Your task to perform on an android device: Open Amazon Image 0: 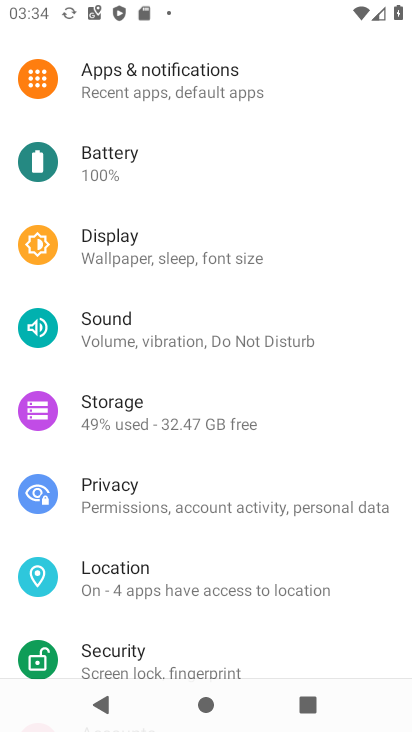
Step 0: press home button
Your task to perform on an android device: Open Amazon Image 1: 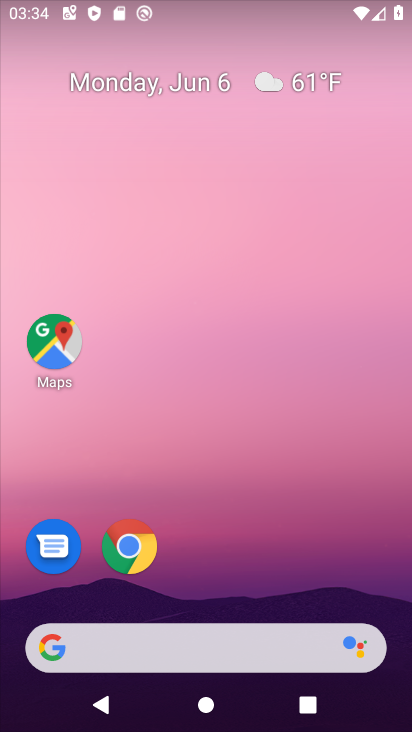
Step 1: click (49, 649)
Your task to perform on an android device: Open Amazon Image 2: 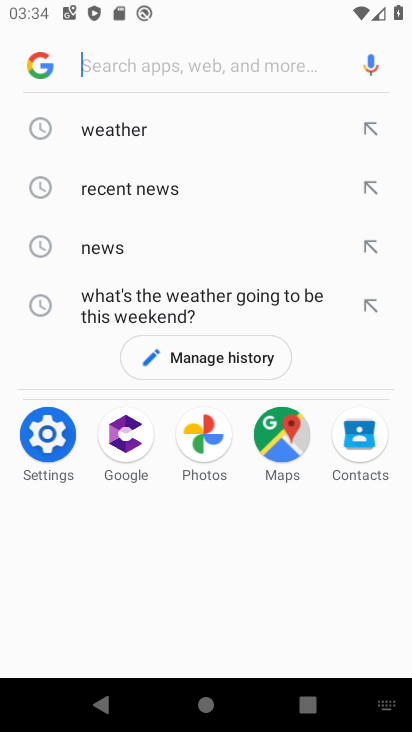
Step 2: type "Amazon"
Your task to perform on an android device: Open Amazon Image 3: 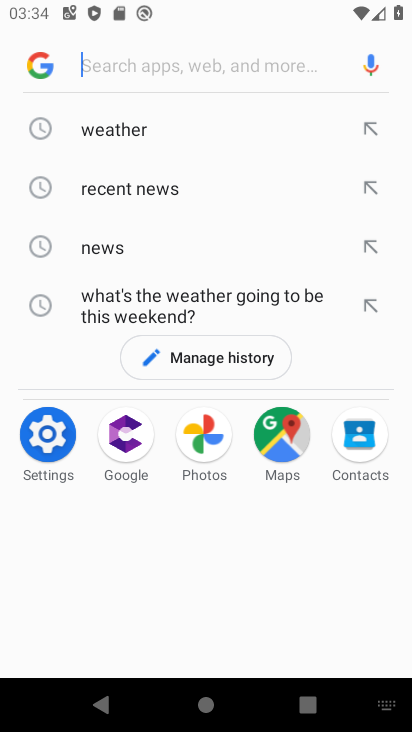
Step 3: click (194, 79)
Your task to perform on an android device: Open Amazon Image 4: 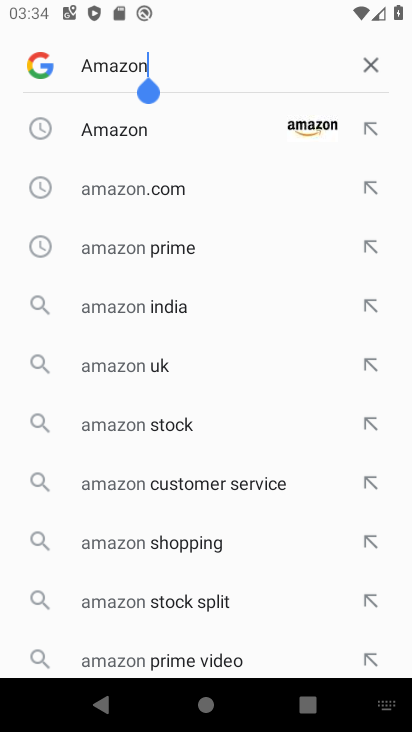
Step 4: click (142, 125)
Your task to perform on an android device: Open Amazon Image 5: 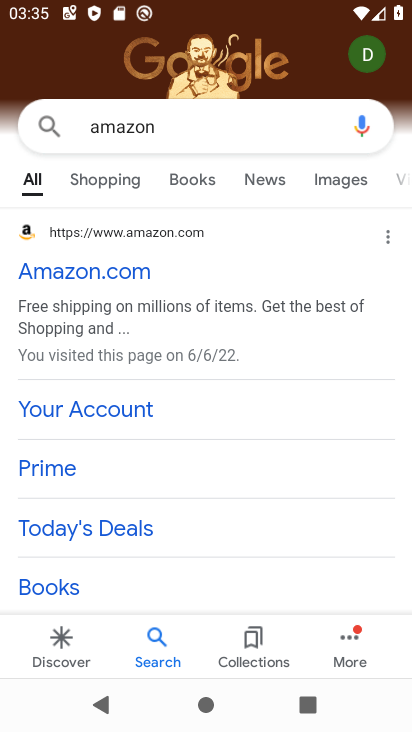
Step 5: click (89, 277)
Your task to perform on an android device: Open Amazon Image 6: 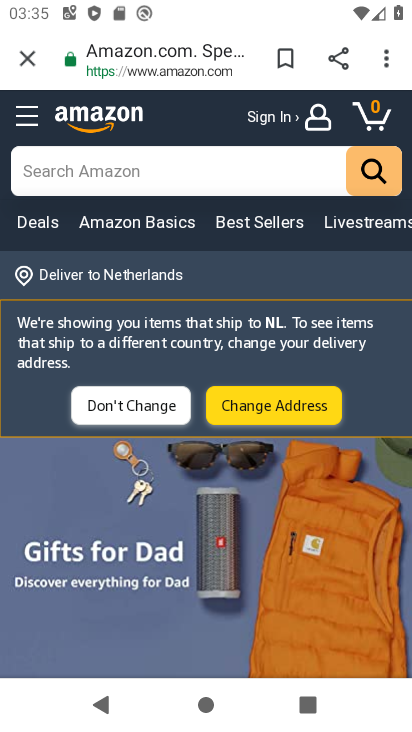
Step 6: task complete